Your task to perform on an android device: add a label to a message in the gmail app Image 0: 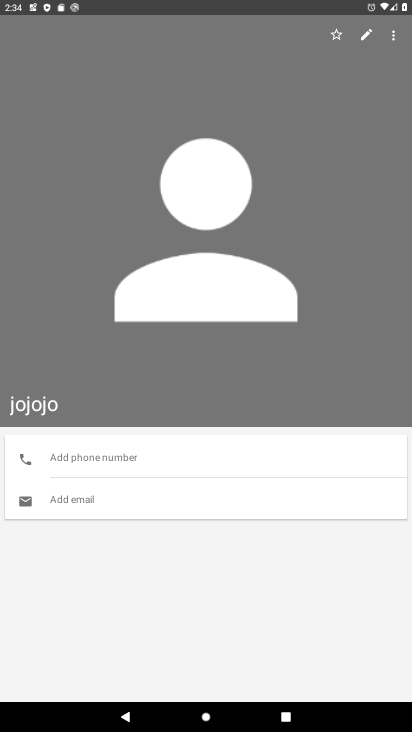
Step 0: press home button
Your task to perform on an android device: add a label to a message in the gmail app Image 1: 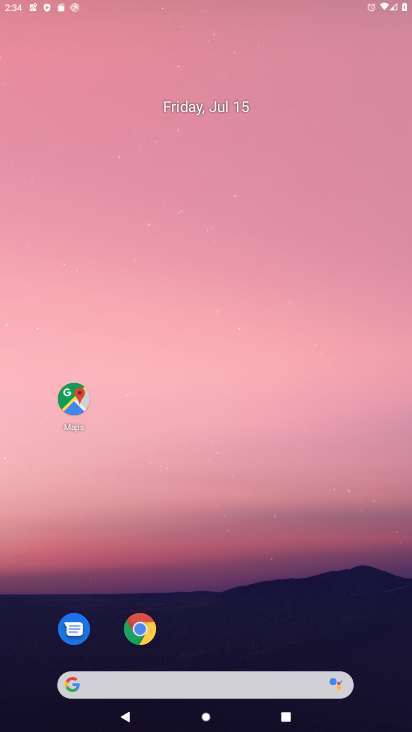
Step 1: drag from (249, 599) to (240, 86)
Your task to perform on an android device: add a label to a message in the gmail app Image 2: 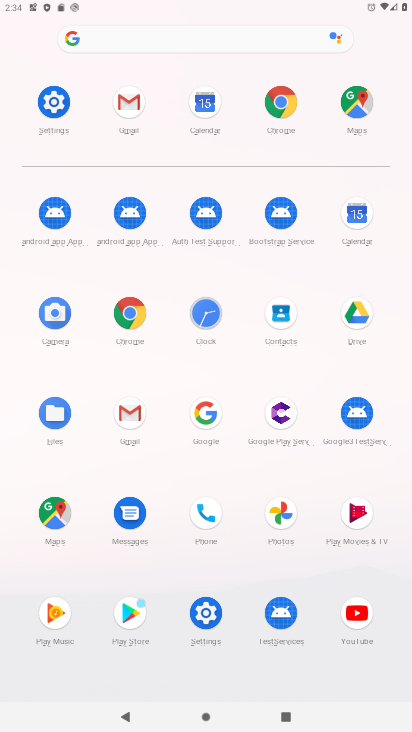
Step 2: click (144, 97)
Your task to perform on an android device: add a label to a message in the gmail app Image 3: 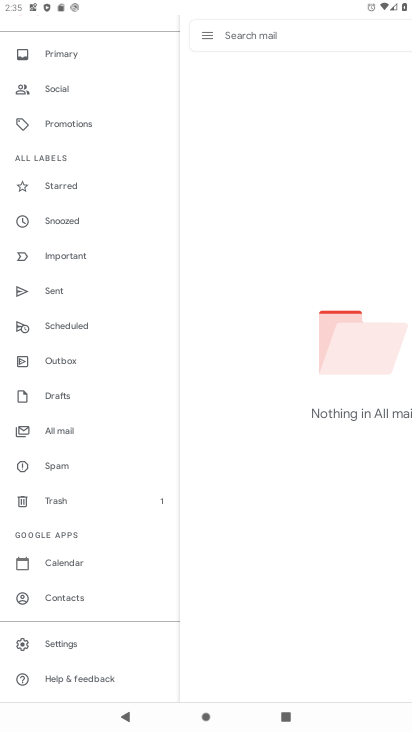
Step 3: click (59, 434)
Your task to perform on an android device: add a label to a message in the gmail app Image 4: 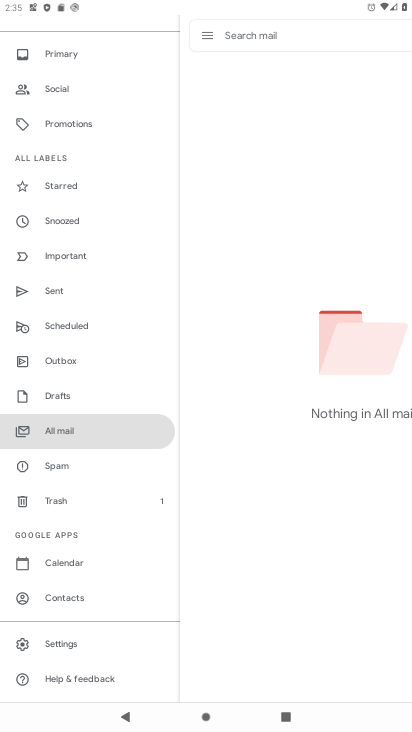
Step 4: task complete